Your task to perform on an android device: Open Chrome and go to settings Image 0: 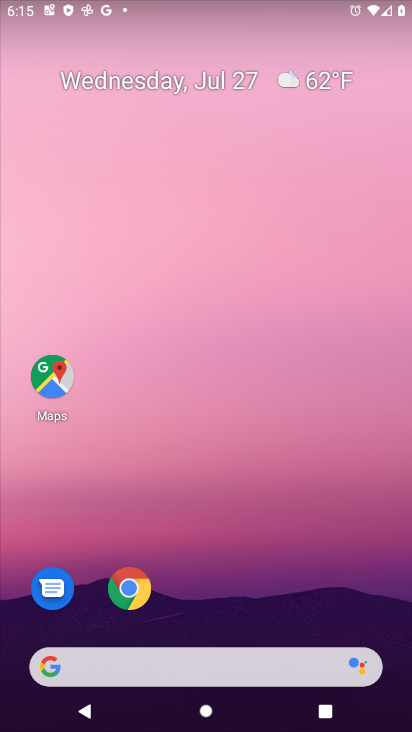
Step 0: click (128, 589)
Your task to perform on an android device: Open Chrome and go to settings Image 1: 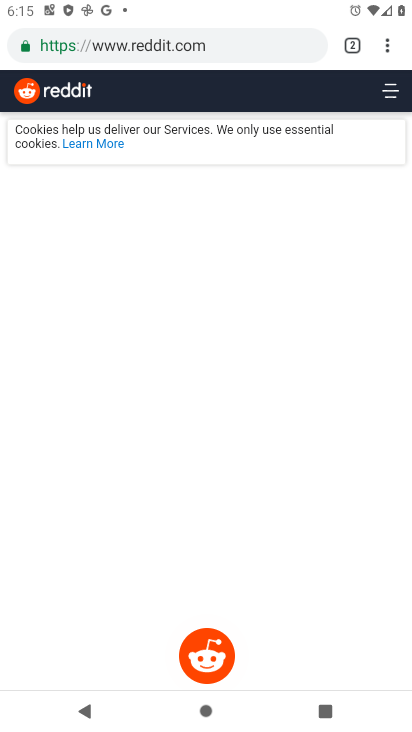
Step 1: click (387, 41)
Your task to perform on an android device: Open Chrome and go to settings Image 2: 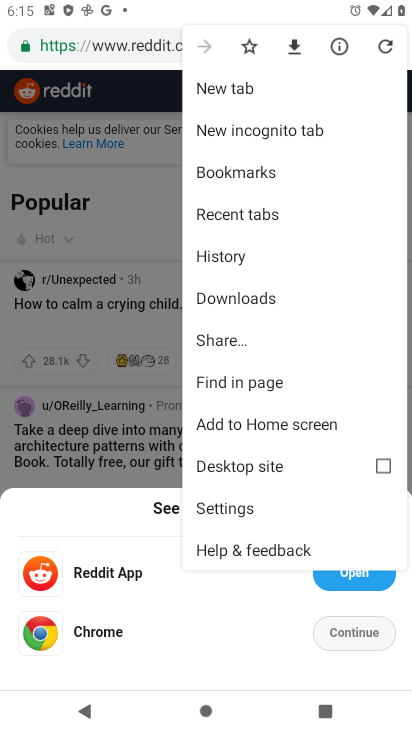
Step 2: click (242, 510)
Your task to perform on an android device: Open Chrome and go to settings Image 3: 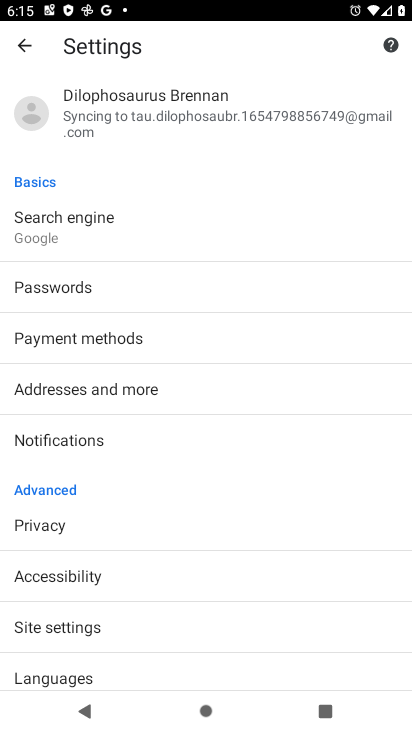
Step 3: task complete